Your task to perform on an android device: Open Amazon Image 0: 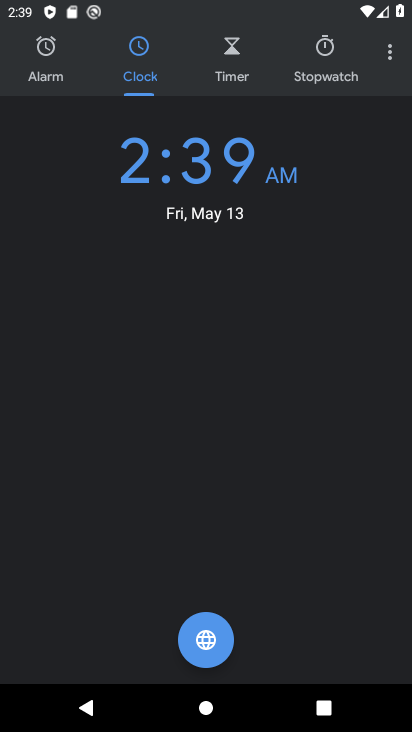
Step 0: press home button
Your task to perform on an android device: Open Amazon Image 1: 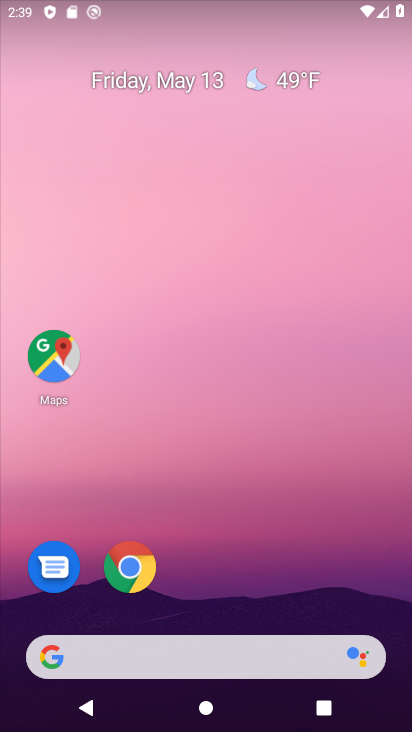
Step 1: click (140, 566)
Your task to perform on an android device: Open Amazon Image 2: 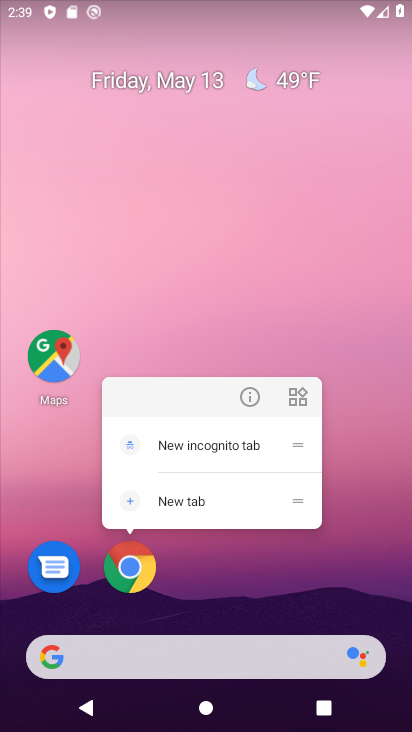
Step 2: click (112, 569)
Your task to perform on an android device: Open Amazon Image 3: 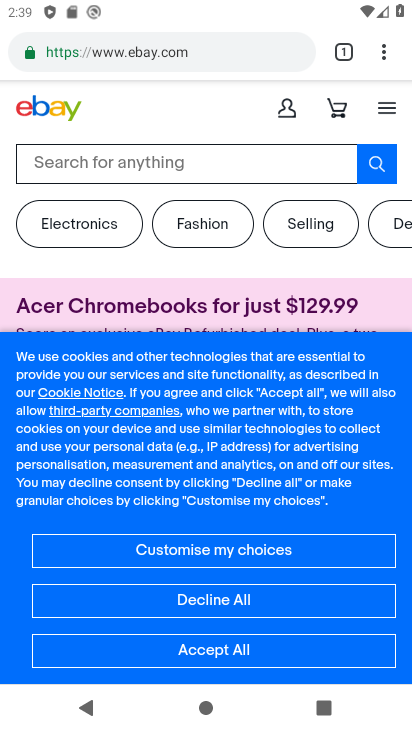
Step 3: click (345, 47)
Your task to perform on an android device: Open Amazon Image 4: 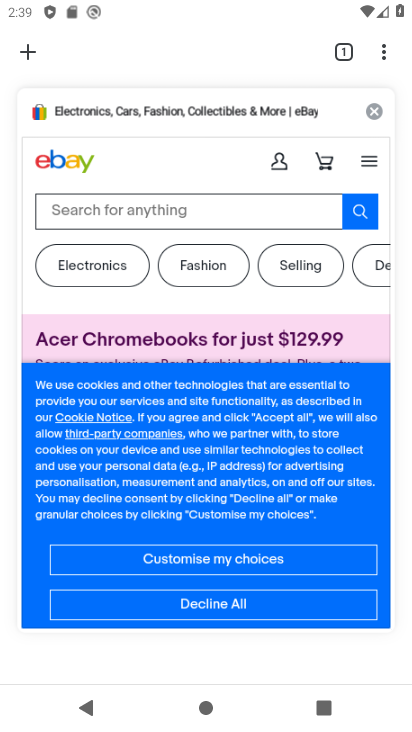
Step 4: click (38, 47)
Your task to perform on an android device: Open Amazon Image 5: 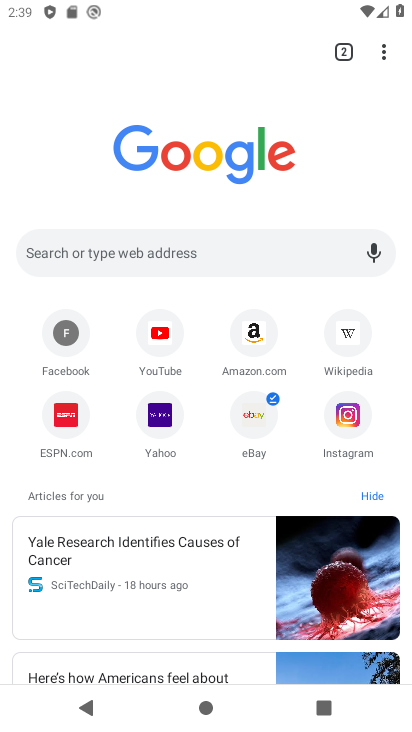
Step 5: click (244, 325)
Your task to perform on an android device: Open Amazon Image 6: 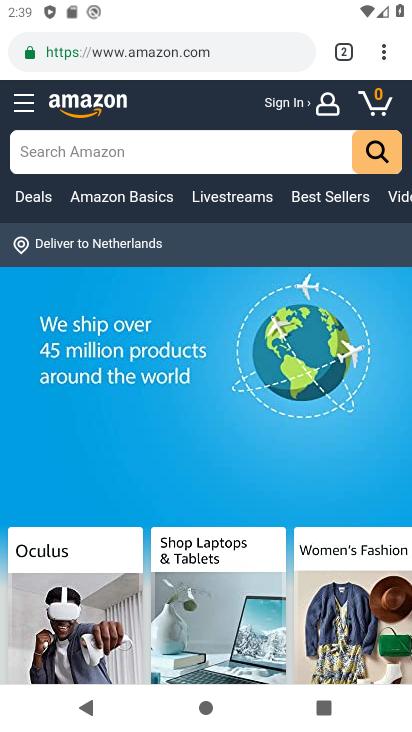
Step 6: task complete